Your task to perform on an android device: delete location history Image 0: 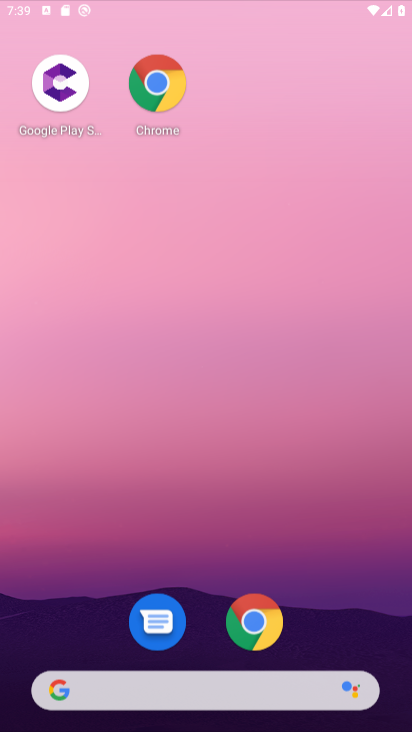
Step 0: click (245, 74)
Your task to perform on an android device: delete location history Image 1: 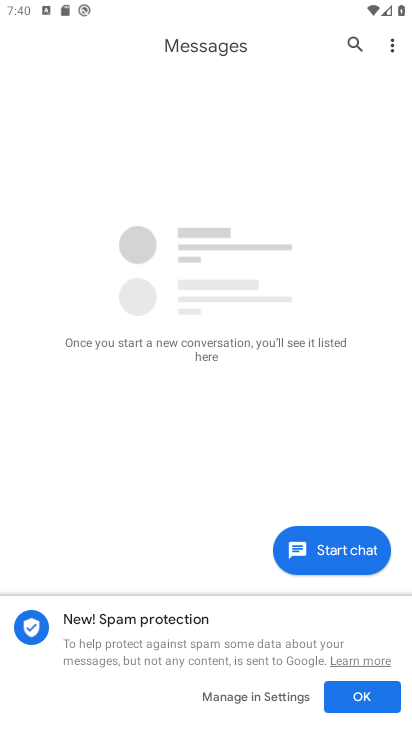
Step 1: press home button
Your task to perform on an android device: delete location history Image 2: 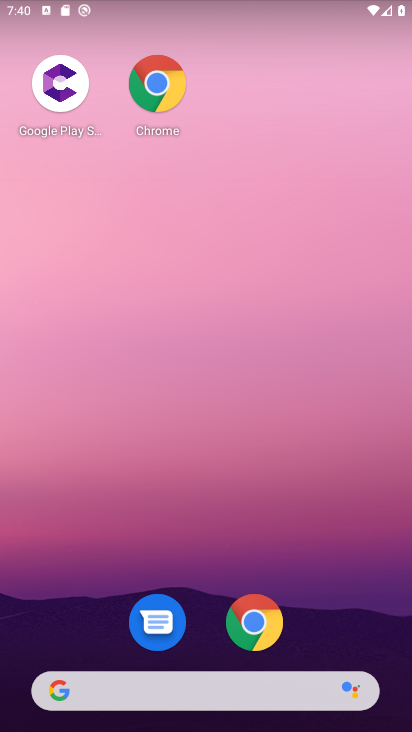
Step 2: drag from (281, 686) to (145, 49)
Your task to perform on an android device: delete location history Image 3: 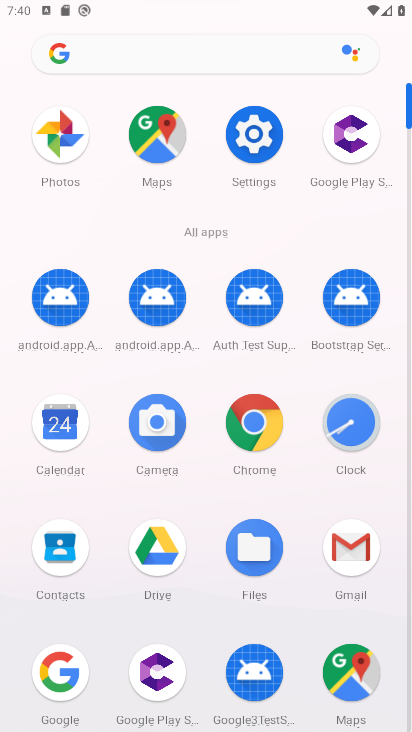
Step 3: click (258, 151)
Your task to perform on an android device: delete location history Image 4: 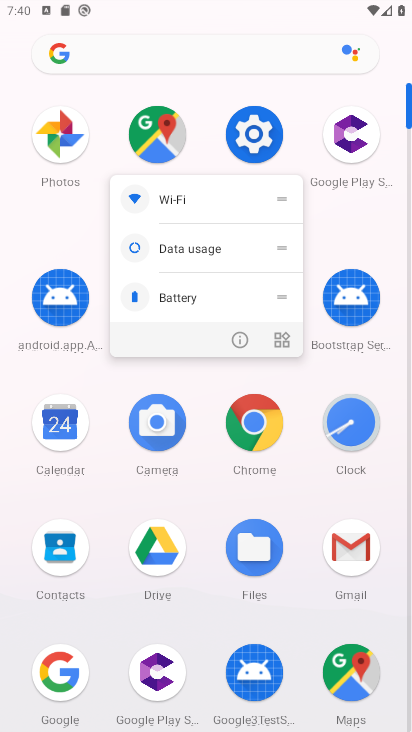
Step 4: click (249, 158)
Your task to perform on an android device: delete location history Image 5: 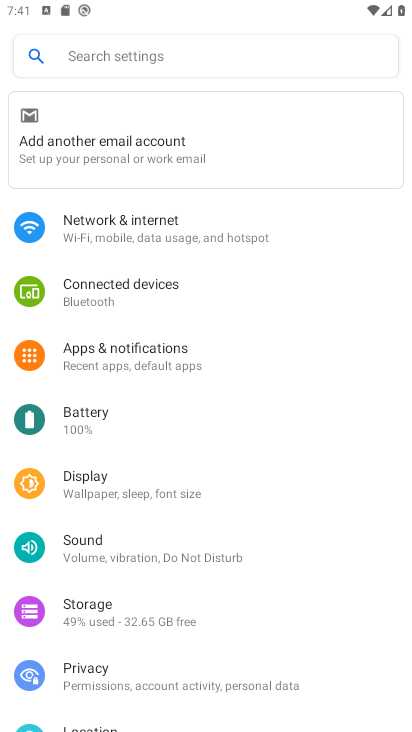
Step 5: click (144, 70)
Your task to perform on an android device: delete location history Image 6: 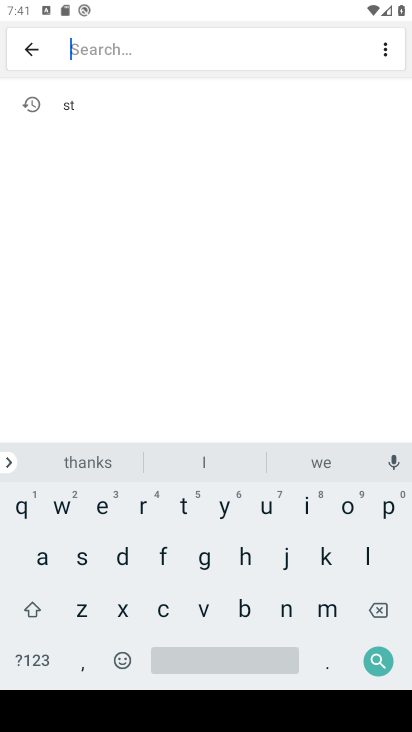
Step 6: click (368, 562)
Your task to perform on an android device: delete location history Image 7: 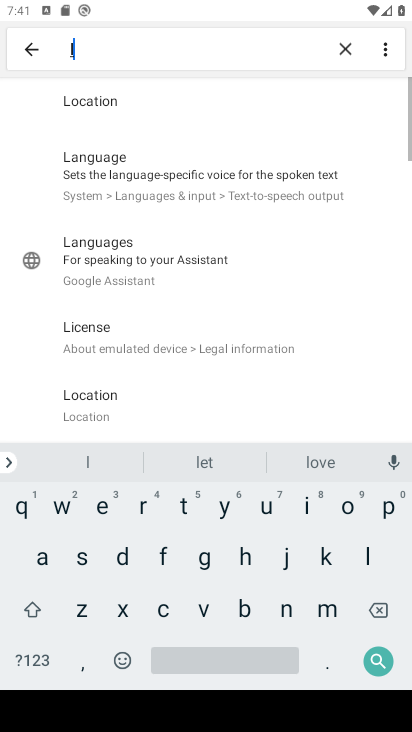
Step 7: click (342, 510)
Your task to perform on an android device: delete location history Image 8: 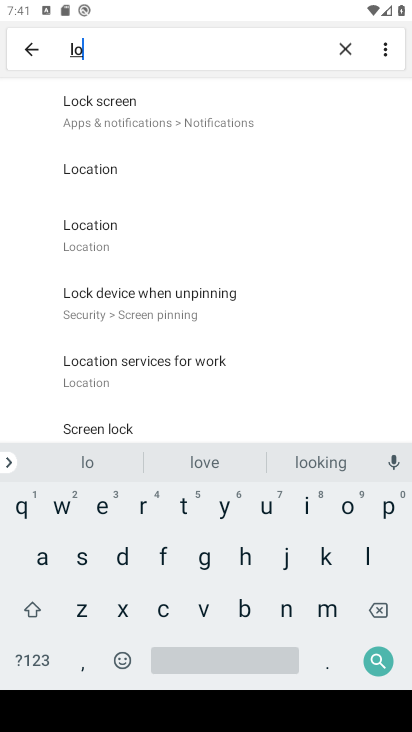
Step 8: click (122, 251)
Your task to perform on an android device: delete location history Image 9: 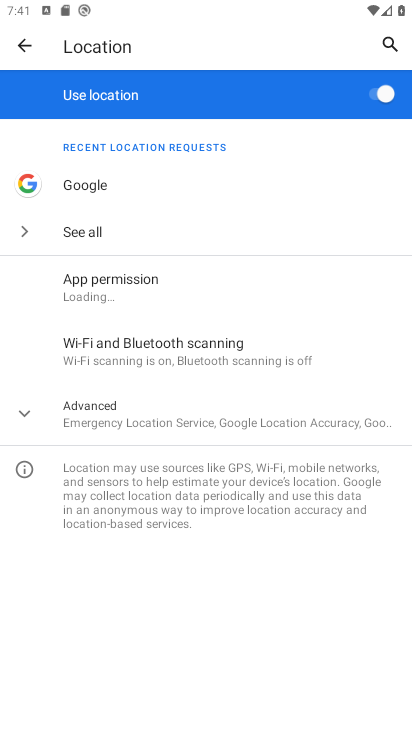
Step 9: click (28, 409)
Your task to perform on an android device: delete location history Image 10: 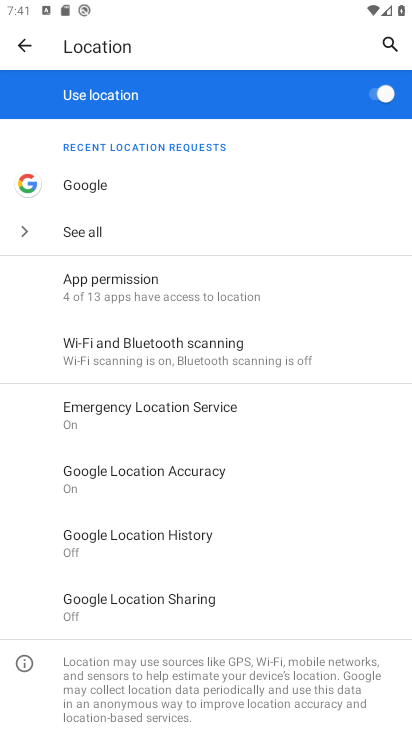
Step 10: click (198, 536)
Your task to perform on an android device: delete location history Image 11: 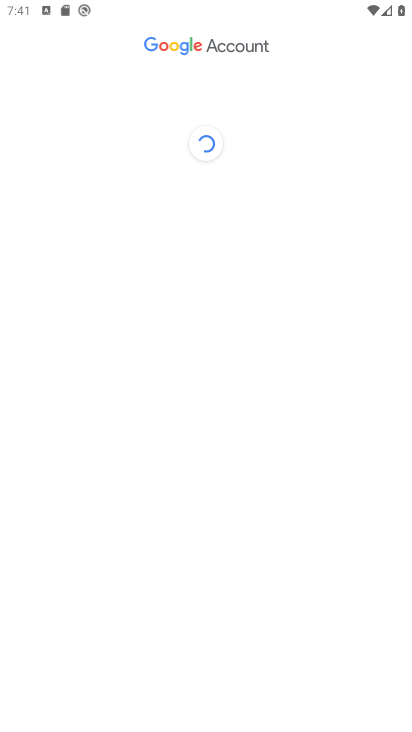
Step 11: task complete